Your task to perform on an android device: Open the calendar and show me this week's events Image 0: 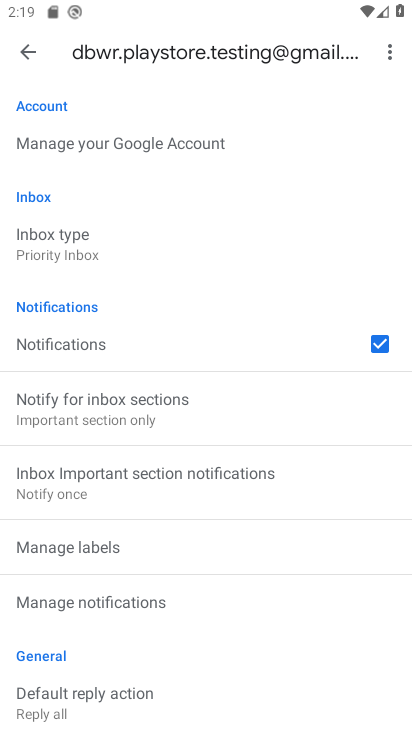
Step 0: press home button
Your task to perform on an android device: Open the calendar and show me this week's events Image 1: 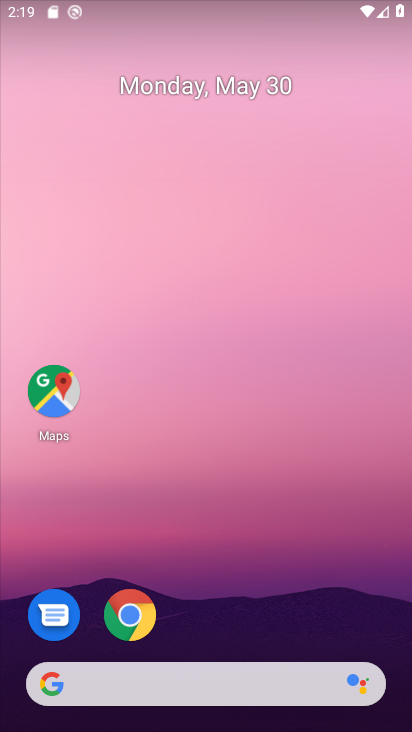
Step 1: drag from (259, 619) to (270, 50)
Your task to perform on an android device: Open the calendar and show me this week's events Image 2: 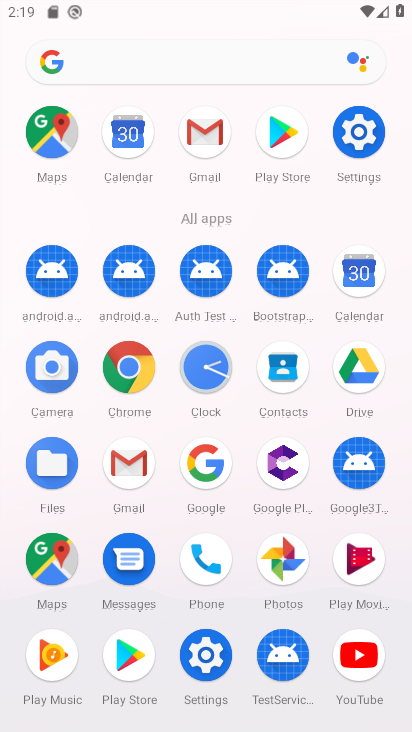
Step 2: click (122, 137)
Your task to perform on an android device: Open the calendar and show me this week's events Image 3: 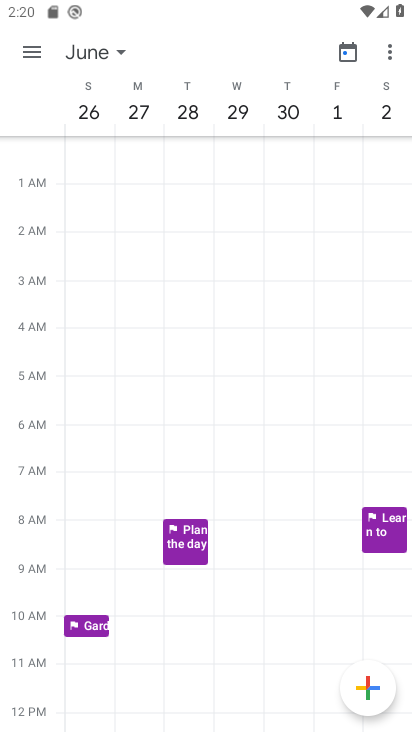
Step 3: task complete